Your task to perform on an android device: Go to Wikipedia Image 0: 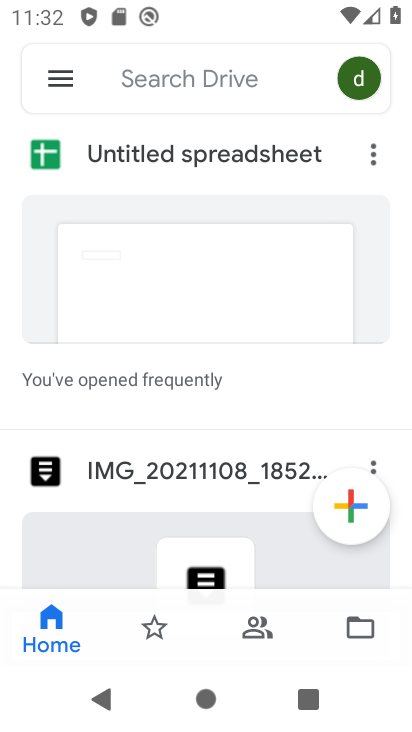
Step 0: press home button
Your task to perform on an android device: Go to Wikipedia Image 1: 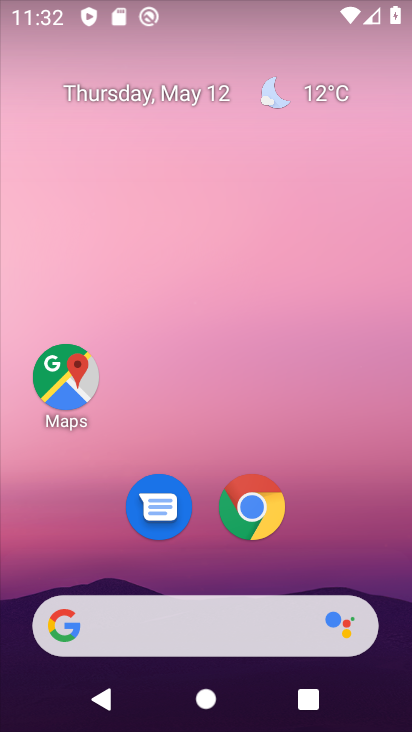
Step 1: click (263, 516)
Your task to perform on an android device: Go to Wikipedia Image 2: 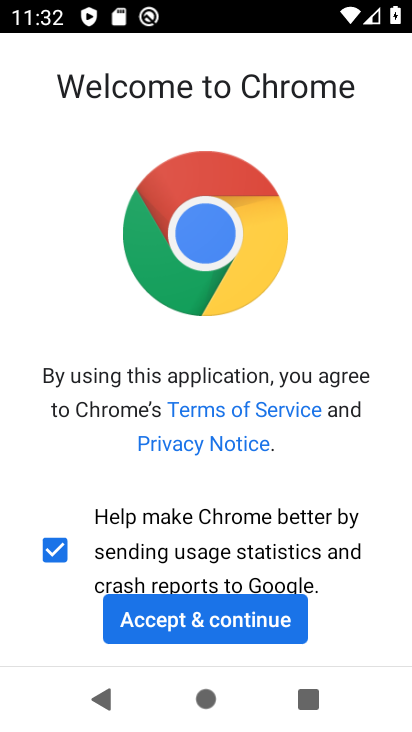
Step 2: click (220, 617)
Your task to perform on an android device: Go to Wikipedia Image 3: 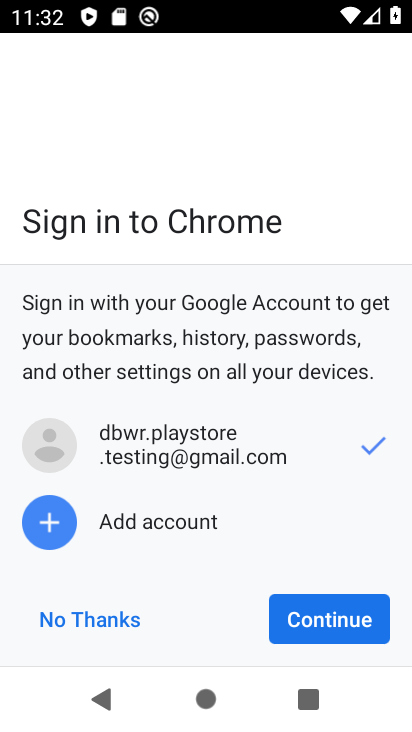
Step 3: click (324, 633)
Your task to perform on an android device: Go to Wikipedia Image 4: 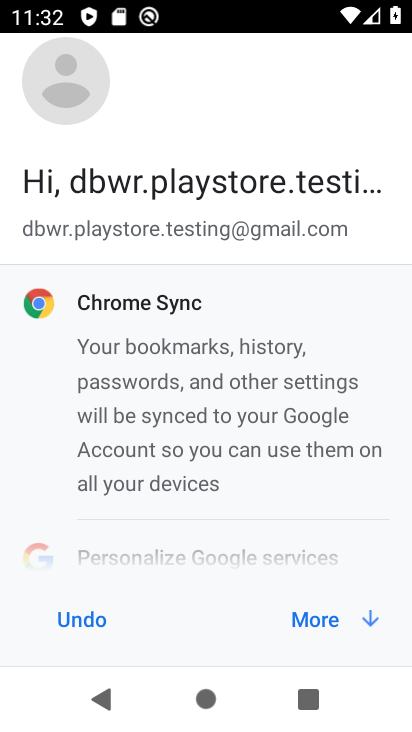
Step 4: click (324, 628)
Your task to perform on an android device: Go to Wikipedia Image 5: 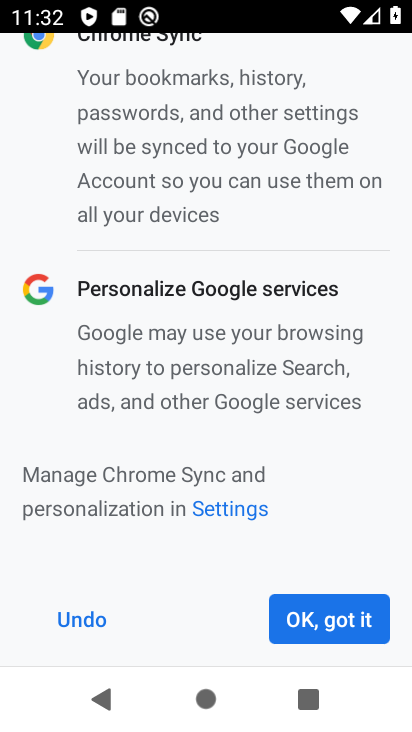
Step 5: click (324, 627)
Your task to perform on an android device: Go to Wikipedia Image 6: 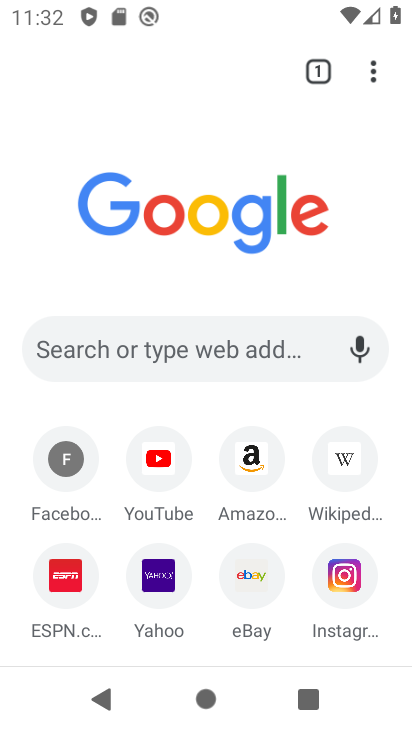
Step 6: click (359, 460)
Your task to perform on an android device: Go to Wikipedia Image 7: 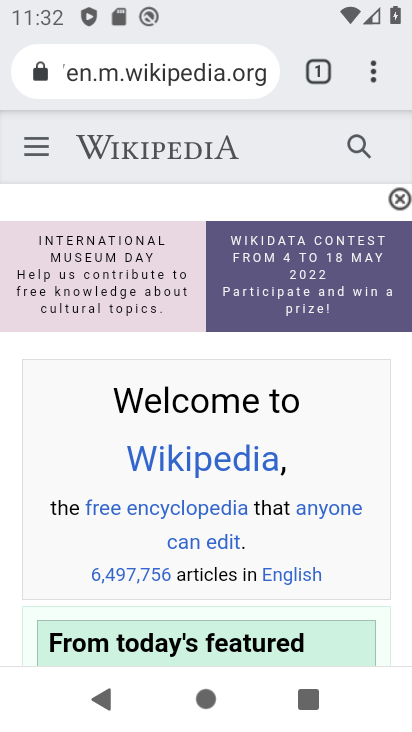
Step 7: task complete